Your task to perform on an android device: Open privacy settings Image 0: 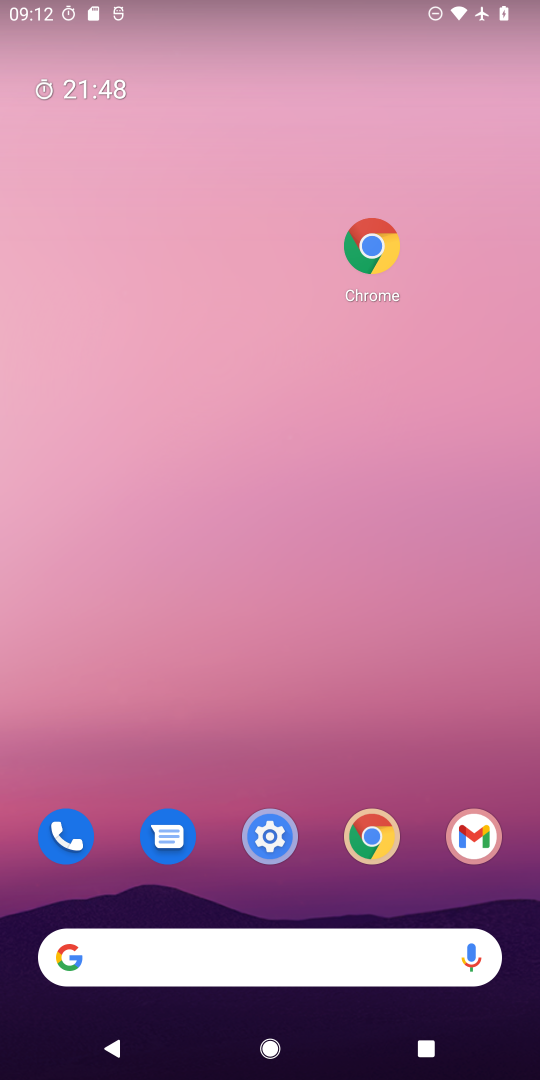
Step 0: drag from (344, 887) to (302, 170)
Your task to perform on an android device: Open privacy settings Image 1: 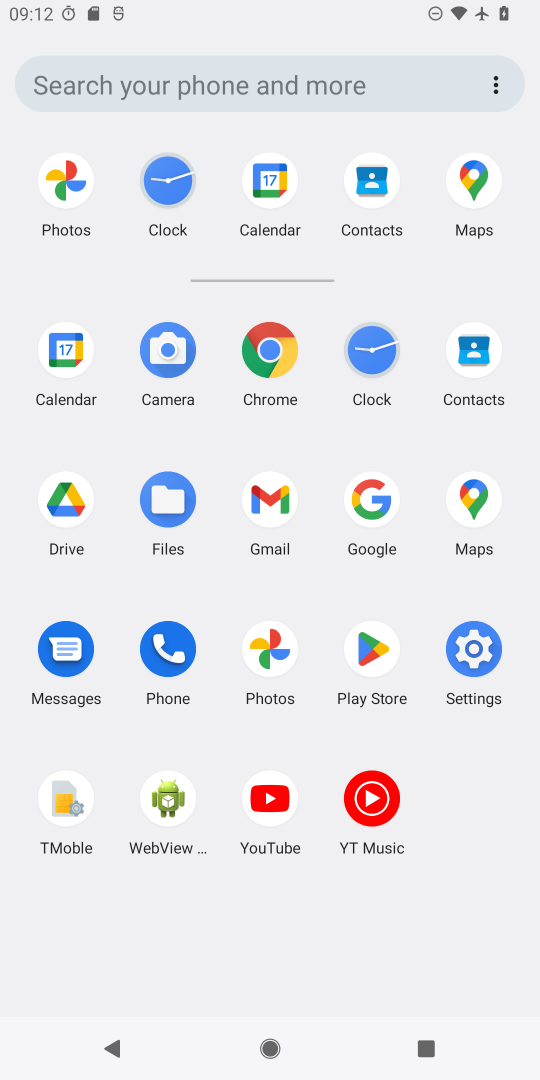
Step 1: click (462, 663)
Your task to perform on an android device: Open privacy settings Image 2: 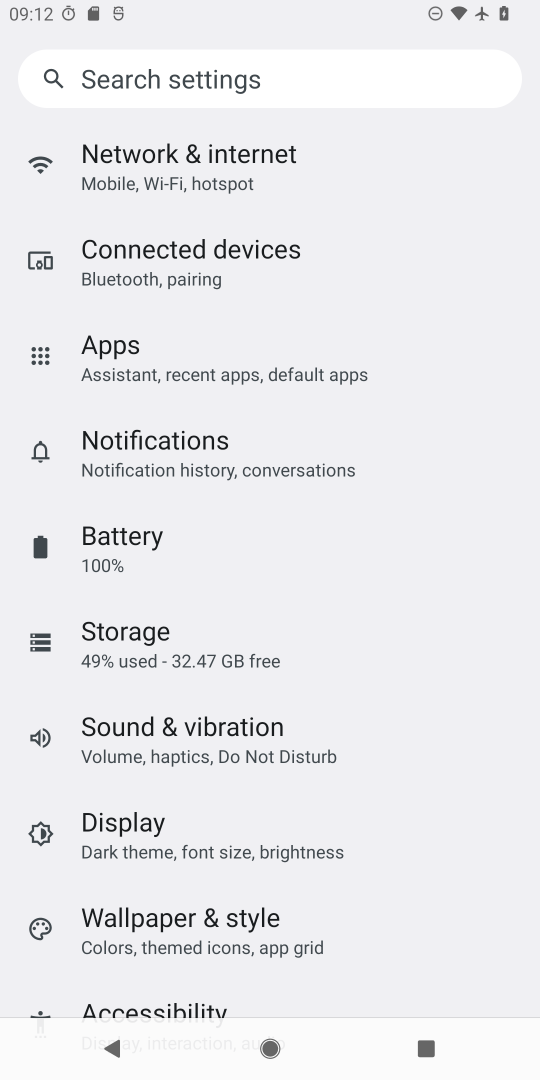
Step 2: drag from (212, 899) to (195, 305)
Your task to perform on an android device: Open privacy settings Image 3: 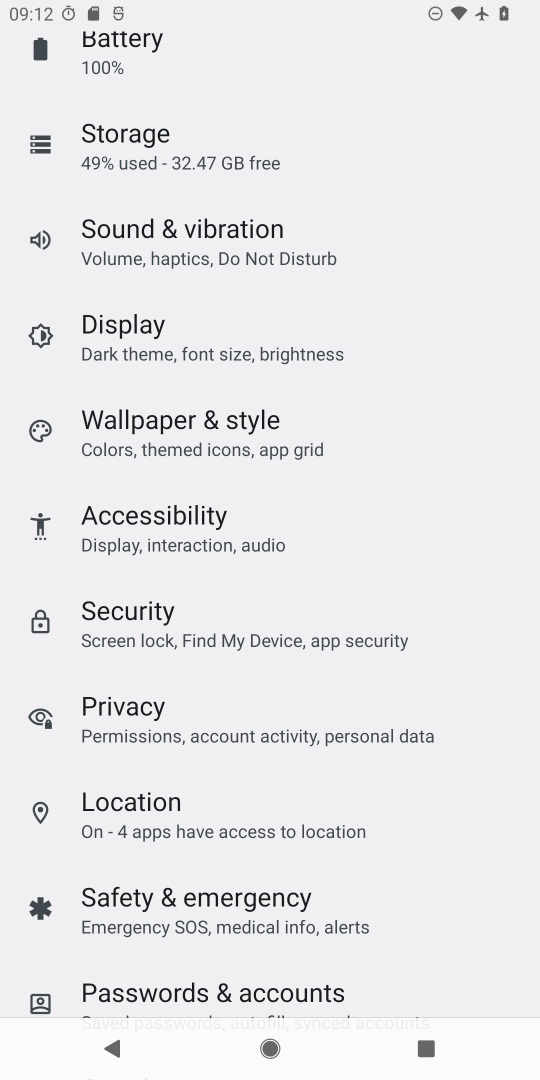
Step 3: click (176, 721)
Your task to perform on an android device: Open privacy settings Image 4: 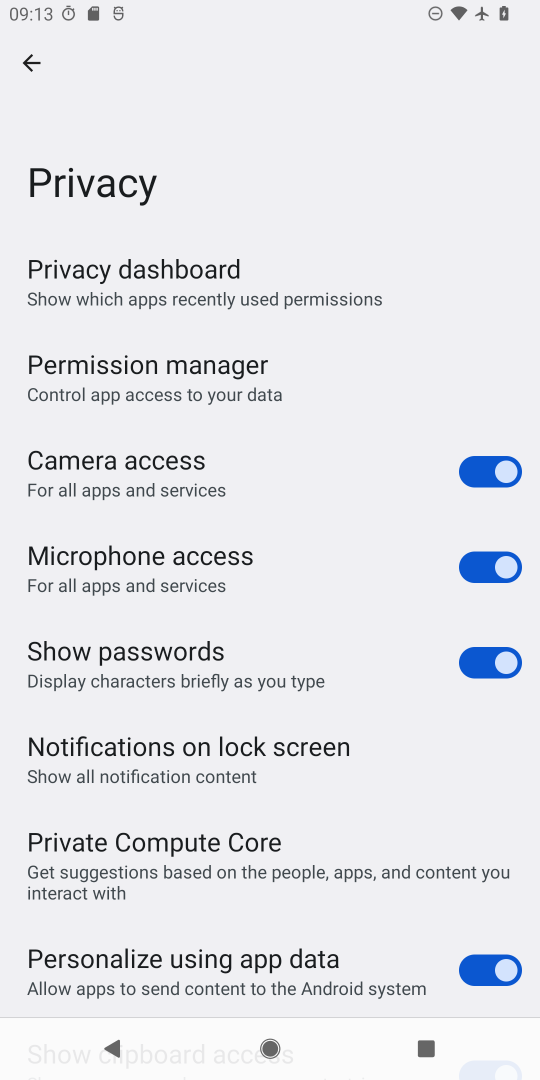
Step 4: task complete